Your task to perform on an android device: Search for pizza restaurants on Maps Image 0: 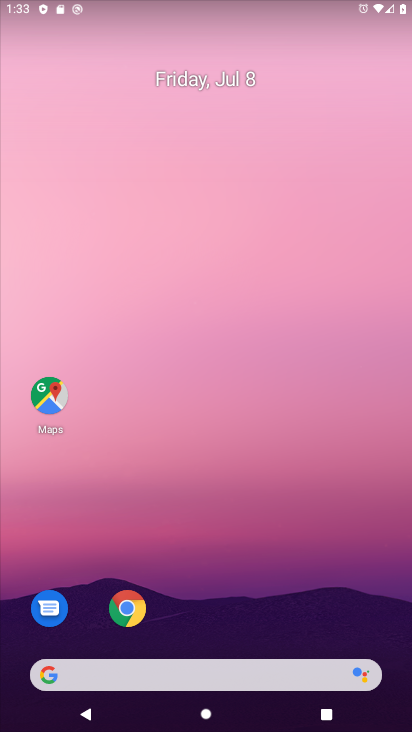
Step 0: click (33, 401)
Your task to perform on an android device: Search for pizza restaurants on Maps Image 1: 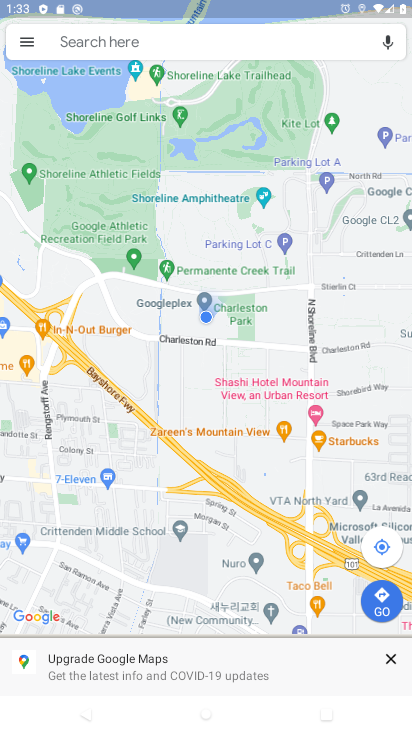
Step 1: click (145, 27)
Your task to perform on an android device: Search for pizza restaurants on Maps Image 2: 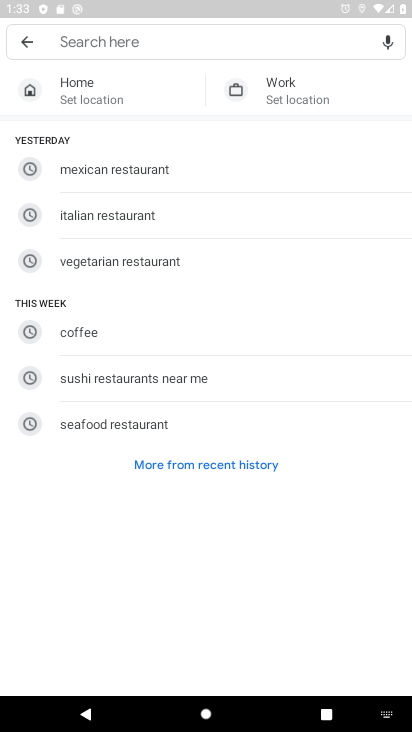
Step 2: type "pizza restaurant"
Your task to perform on an android device: Search for pizza restaurants on Maps Image 3: 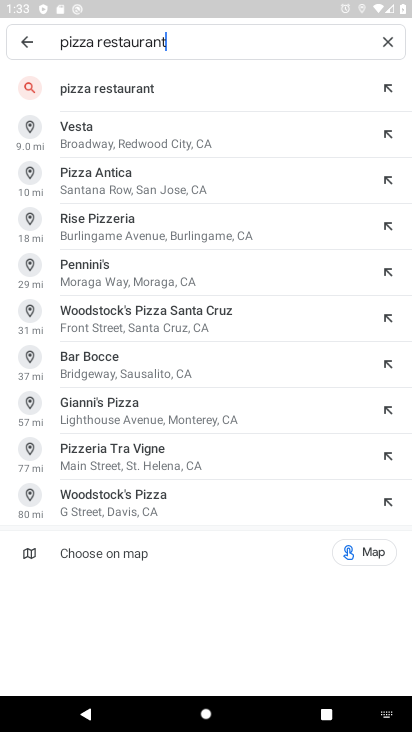
Step 3: click (111, 102)
Your task to perform on an android device: Search for pizza restaurants on Maps Image 4: 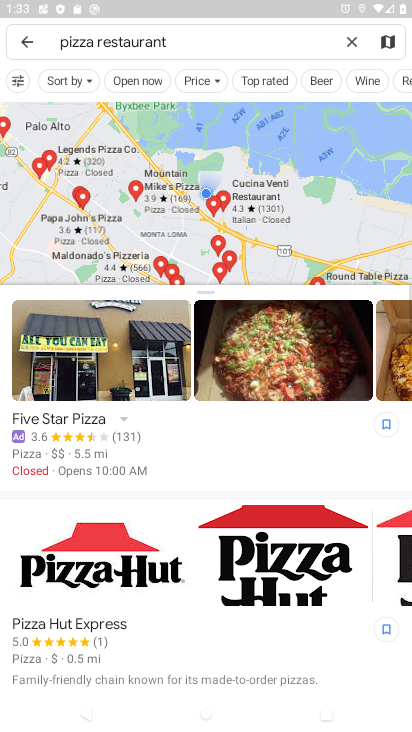
Step 4: task complete